Your task to perform on an android device: turn off notifications in google photos Image 0: 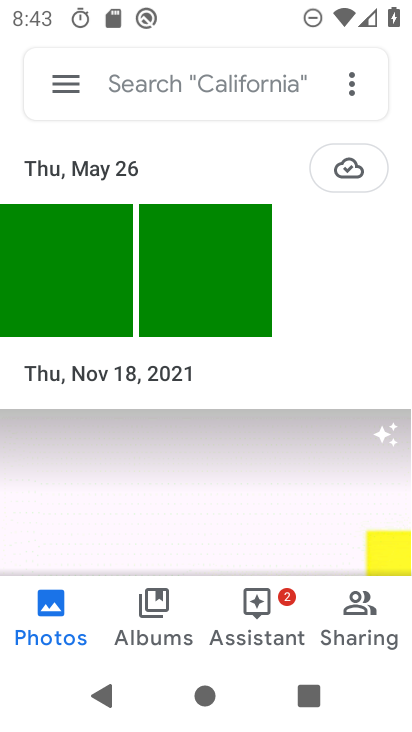
Step 0: press home button
Your task to perform on an android device: turn off notifications in google photos Image 1: 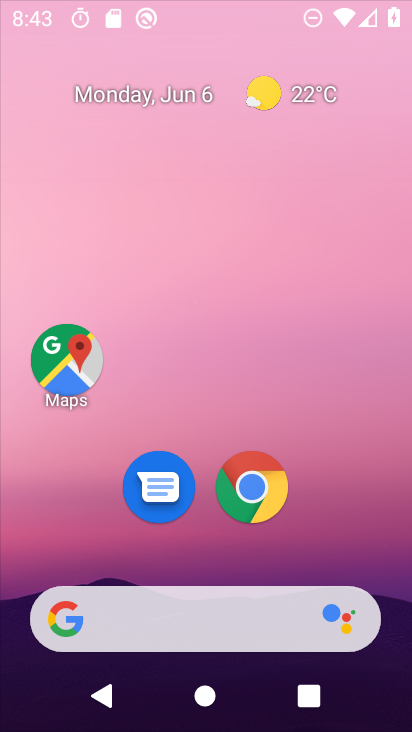
Step 1: drag from (394, 633) to (265, 41)
Your task to perform on an android device: turn off notifications in google photos Image 2: 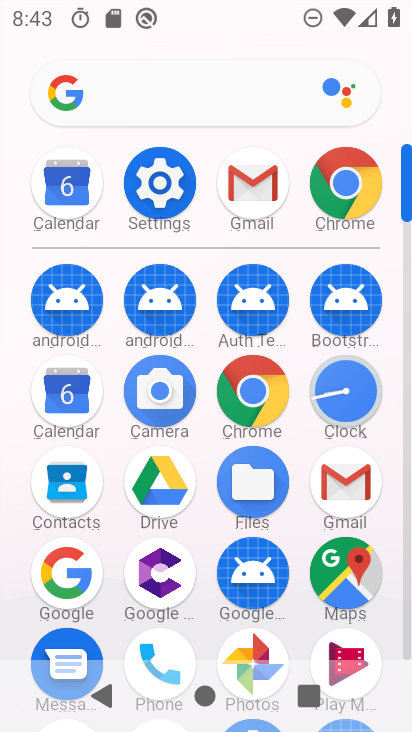
Step 2: click (244, 647)
Your task to perform on an android device: turn off notifications in google photos Image 3: 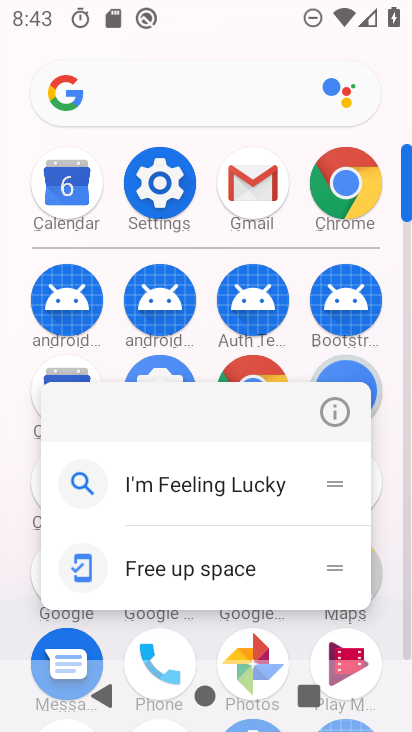
Step 3: click (262, 645)
Your task to perform on an android device: turn off notifications in google photos Image 4: 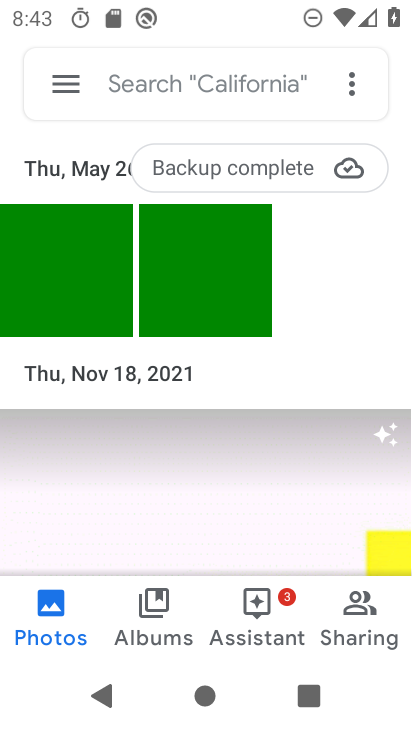
Step 4: click (49, 79)
Your task to perform on an android device: turn off notifications in google photos Image 5: 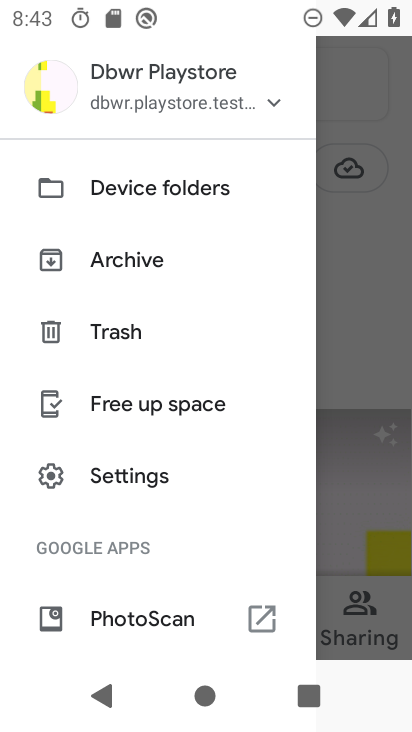
Step 5: click (130, 473)
Your task to perform on an android device: turn off notifications in google photos Image 6: 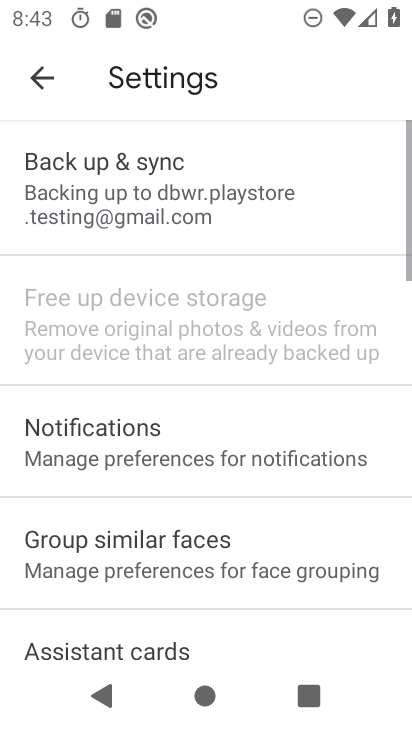
Step 6: click (130, 473)
Your task to perform on an android device: turn off notifications in google photos Image 7: 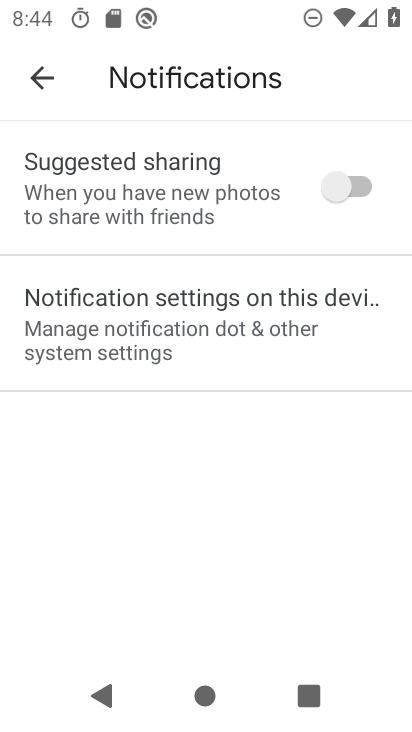
Step 7: task complete